Your task to perform on an android device: check storage Image 0: 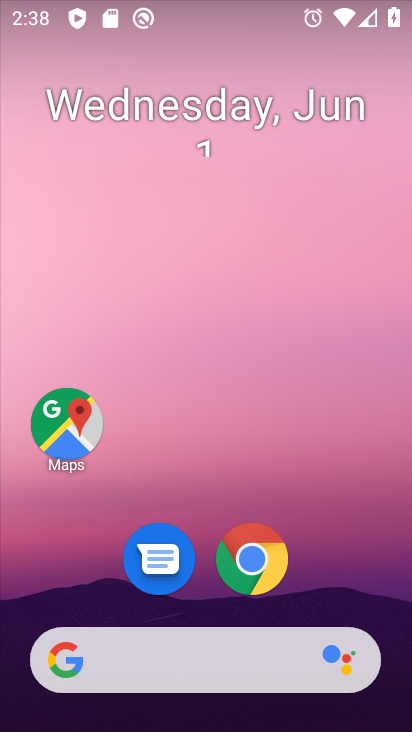
Step 0: drag from (312, 590) to (315, 22)
Your task to perform on an android device: check storage Image 1: 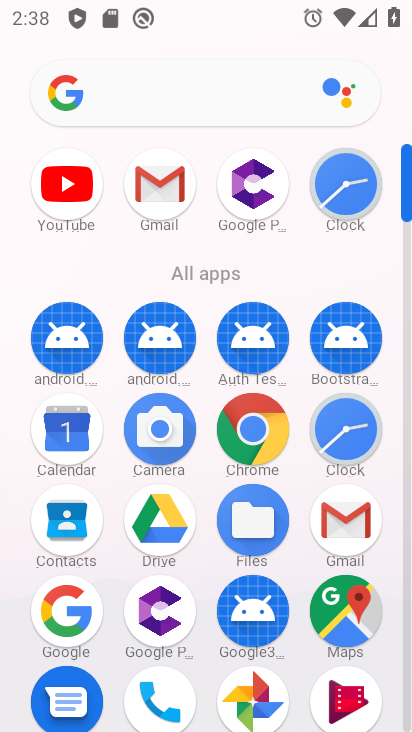
Step 1: drag from (210, 571) to (203, 151)
Your task to perform on an android device: check storage Image 2: 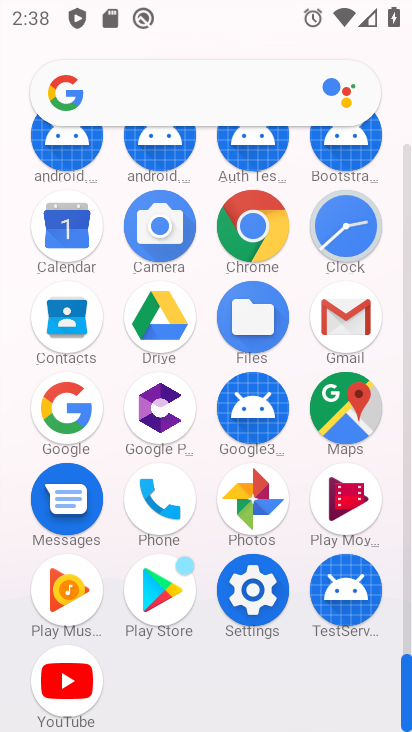
Step 2: click (241, 607)
Your task to perform on an android device: check storage Image 3: 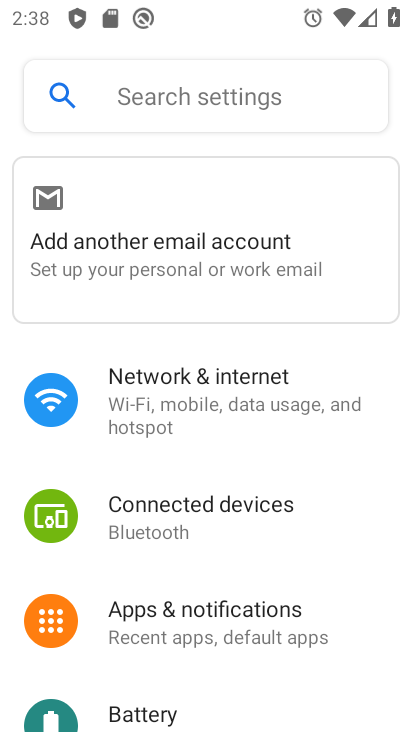
Step 3: drag from (222, 631) to (272, 192)
Your task to perform on an android device: check storage Image 4: 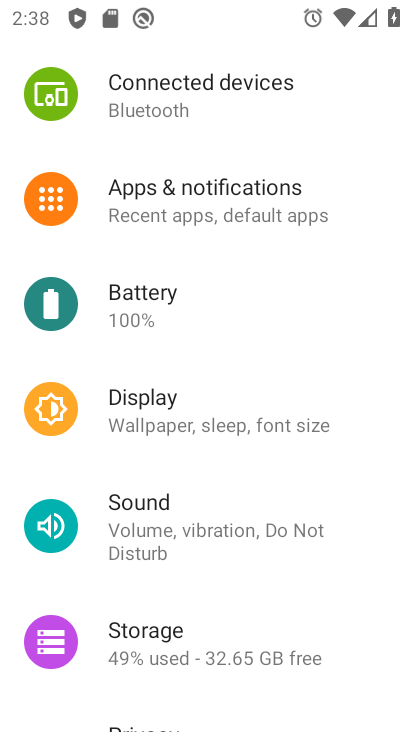
Step 4: click (183, 635)
Your task to perform on an android device: check storage Image 5: 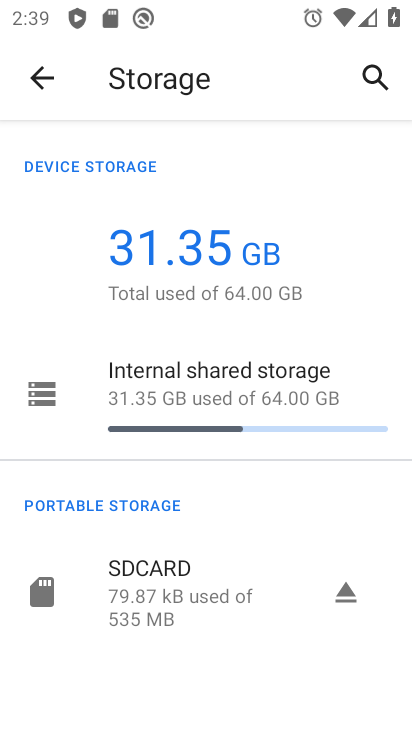
Step 5: task complete